Your task to perform on an android device: Search for seafood restaurants on Google Maps Image 0: 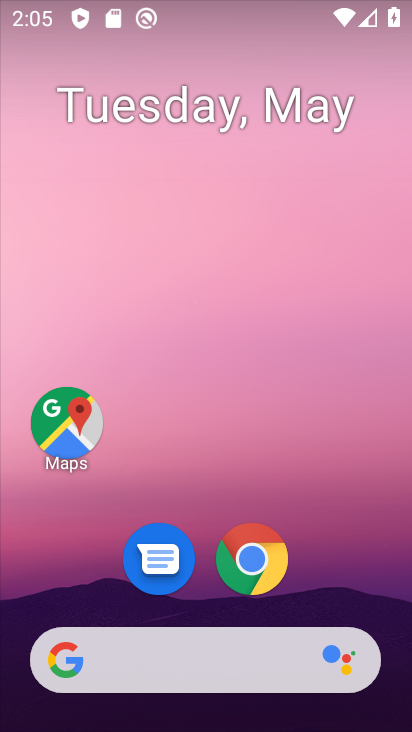
Step 0: press home button
Your task to perform on an android device: Search for seafood restaurants on Google Maps Image 1: 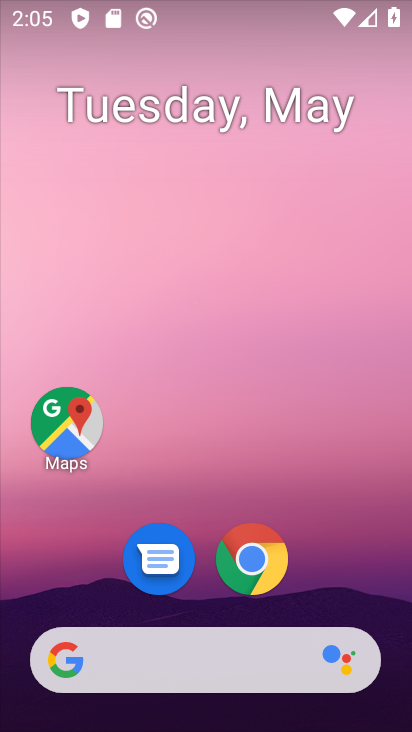
Step 1: drag from (222, 665) to (304, 219)
Your task to perform on an android device: Search for seafood restaurants on Google Maps Image 2: 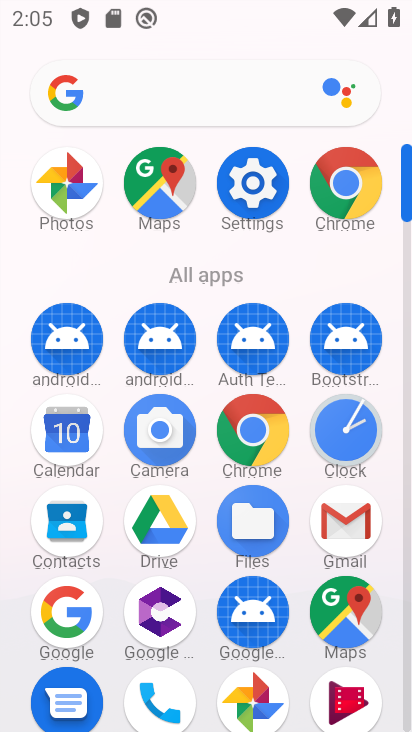
Step 2: click (352, 619)
Your task to perform on an android device: Search for seafood restaurants on Google Maps Image 3: 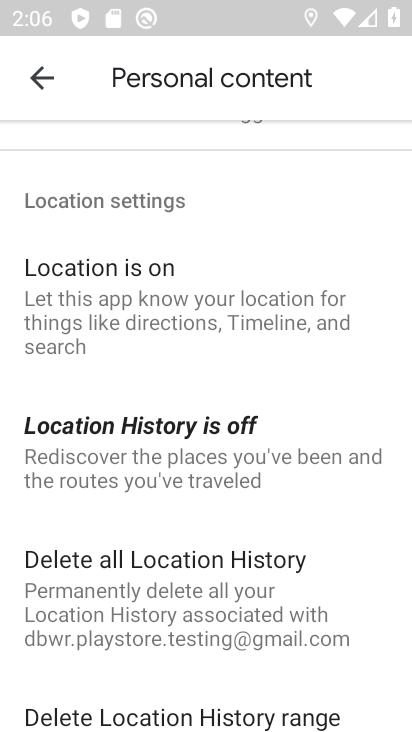
Step 3: click (46, 77)
Your task to perform on an android device: Search for seafood restaurants on Google Maps Image 4: 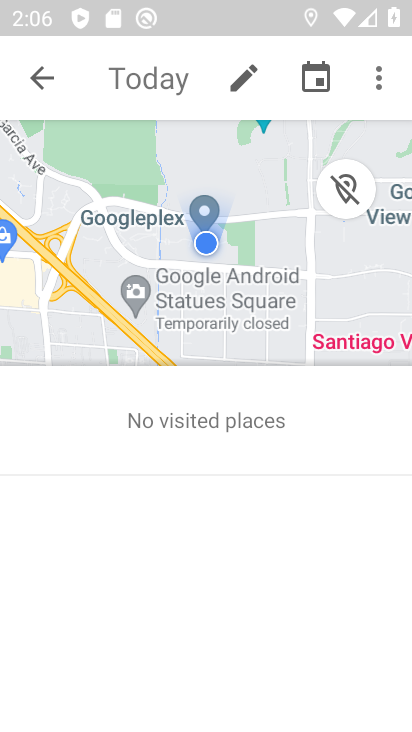
Step 4: click (46, 77)
Your task to perform on an android device: Search for seafood restaurants on Google Maps Image 5: 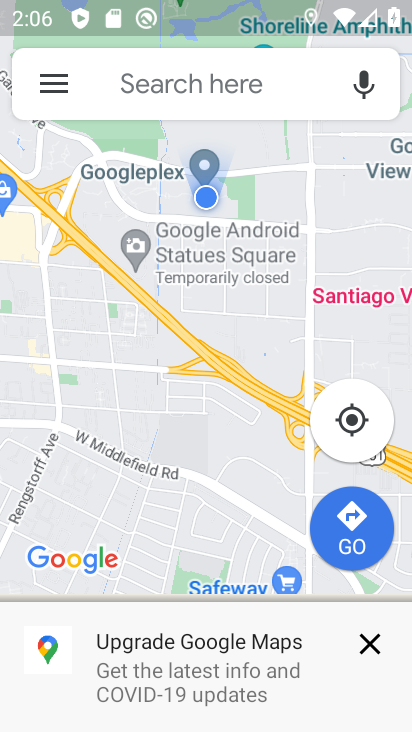
Step 5: click (156, 72)
Your task to perform on an android device: Search for seafood restaurants on Google Maps Image 6: 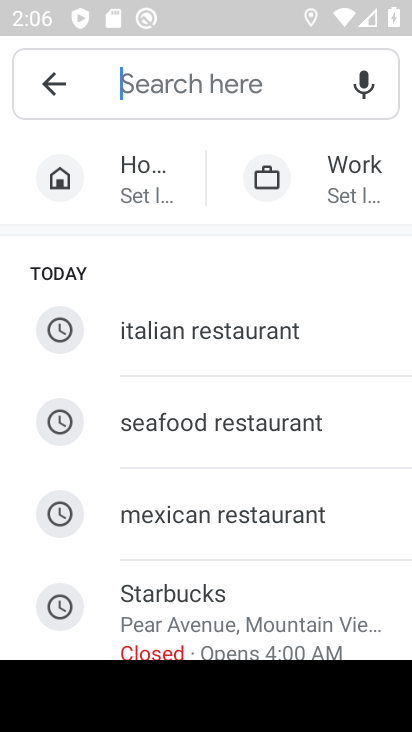
Step 6: click (190, 426)
Your task to perform on an android device: Search for seafood restaurants on Google Maps Image 7: 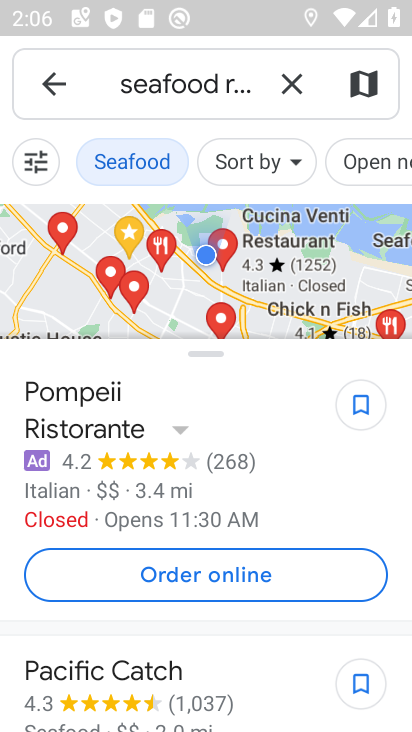
Step 7: task complete